Your task to perform on an android device: turn off translation in the chrome app Image 0: 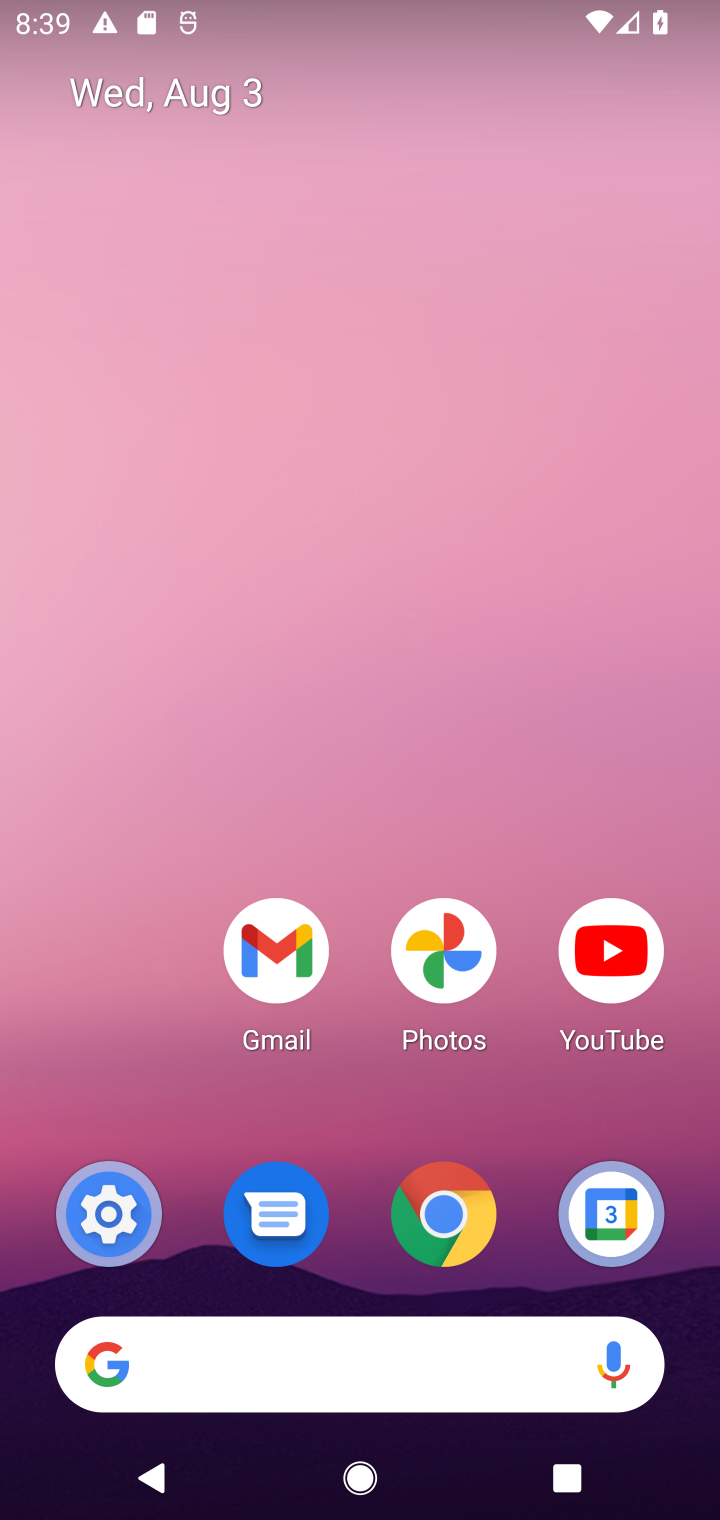
Step 0: click (450, 1200)
Your task to perform on an android device: turn off translation in the chrome app Image 1: 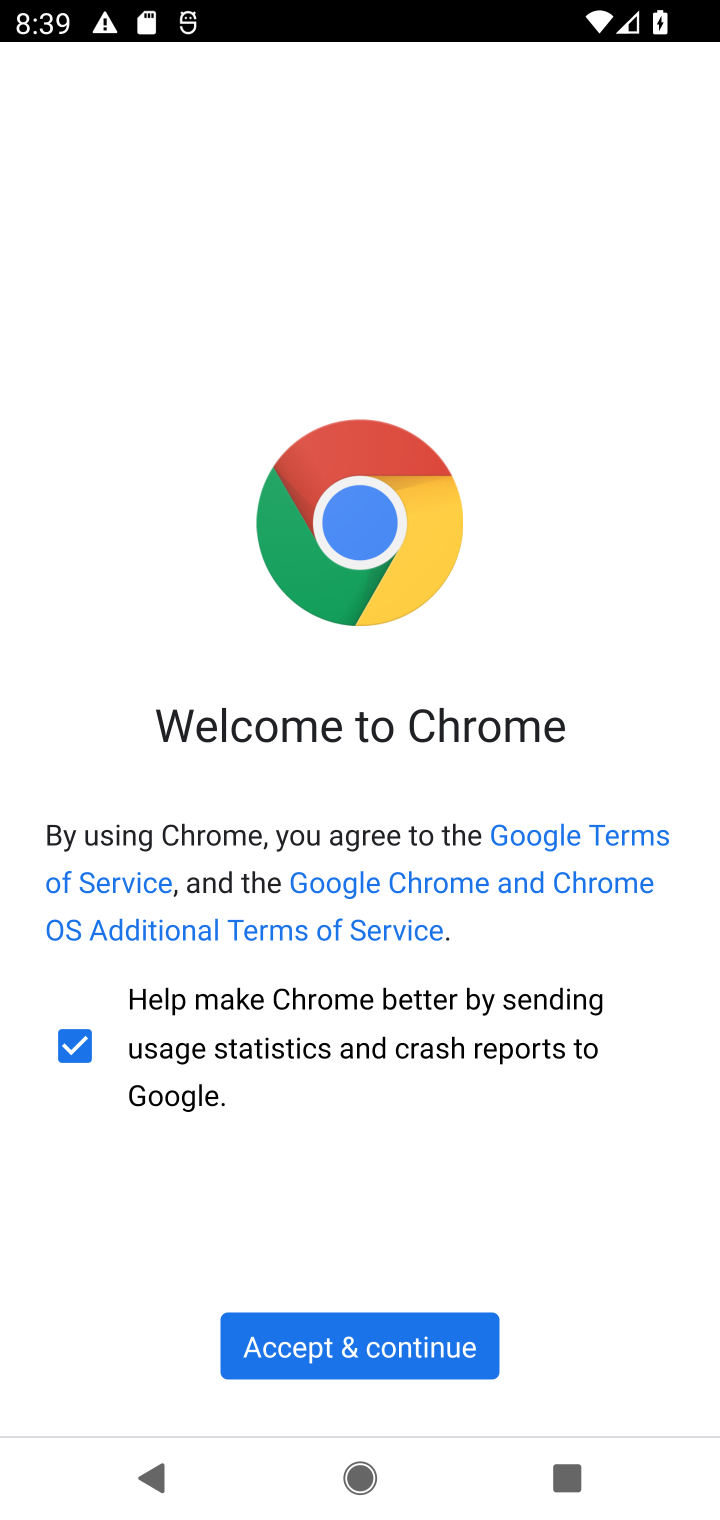
Step 1: click (318, 1353)
Your task to perform on an android device: turn off translation in the chrome app Image 2: 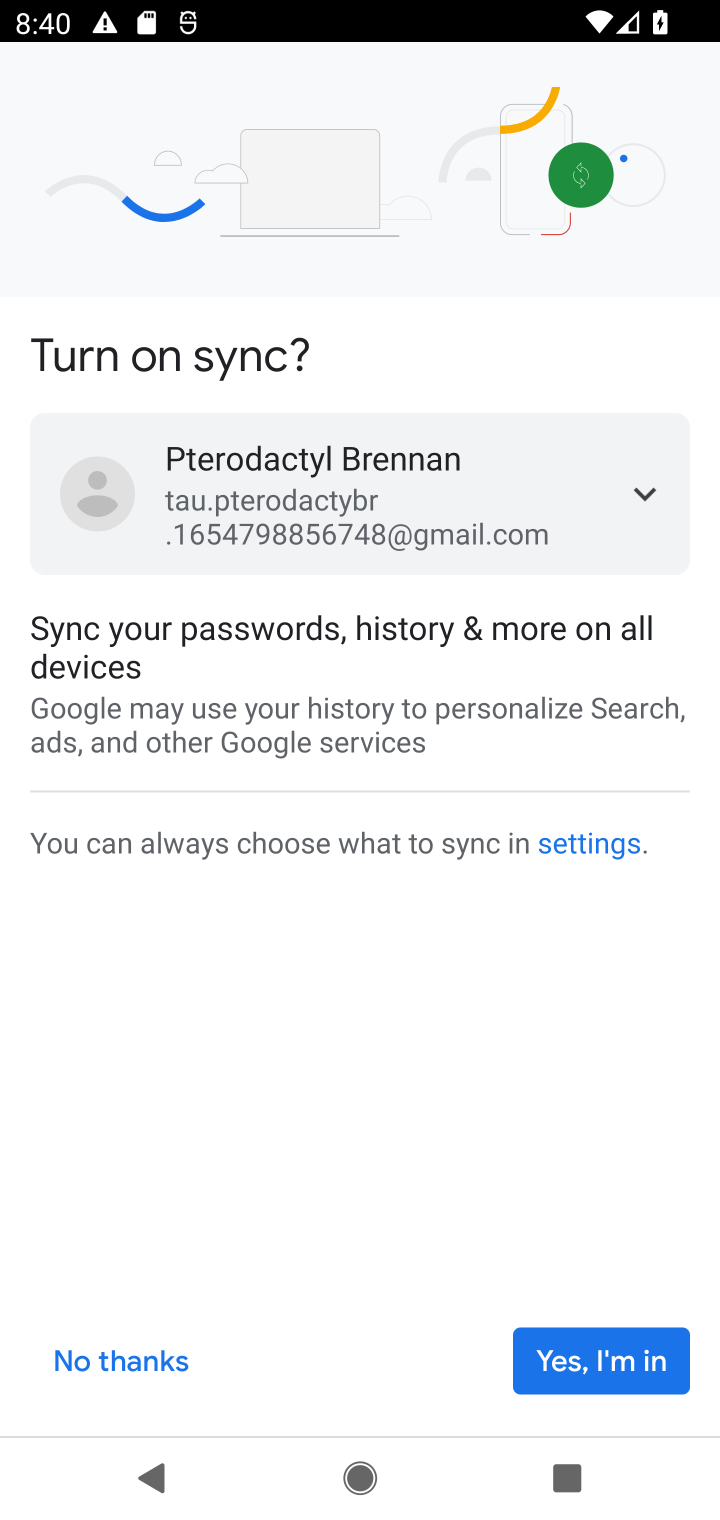
Step 2: click (570, 1370)
Your task to perform on an android device: turn off translation in the chrome app Image 3: 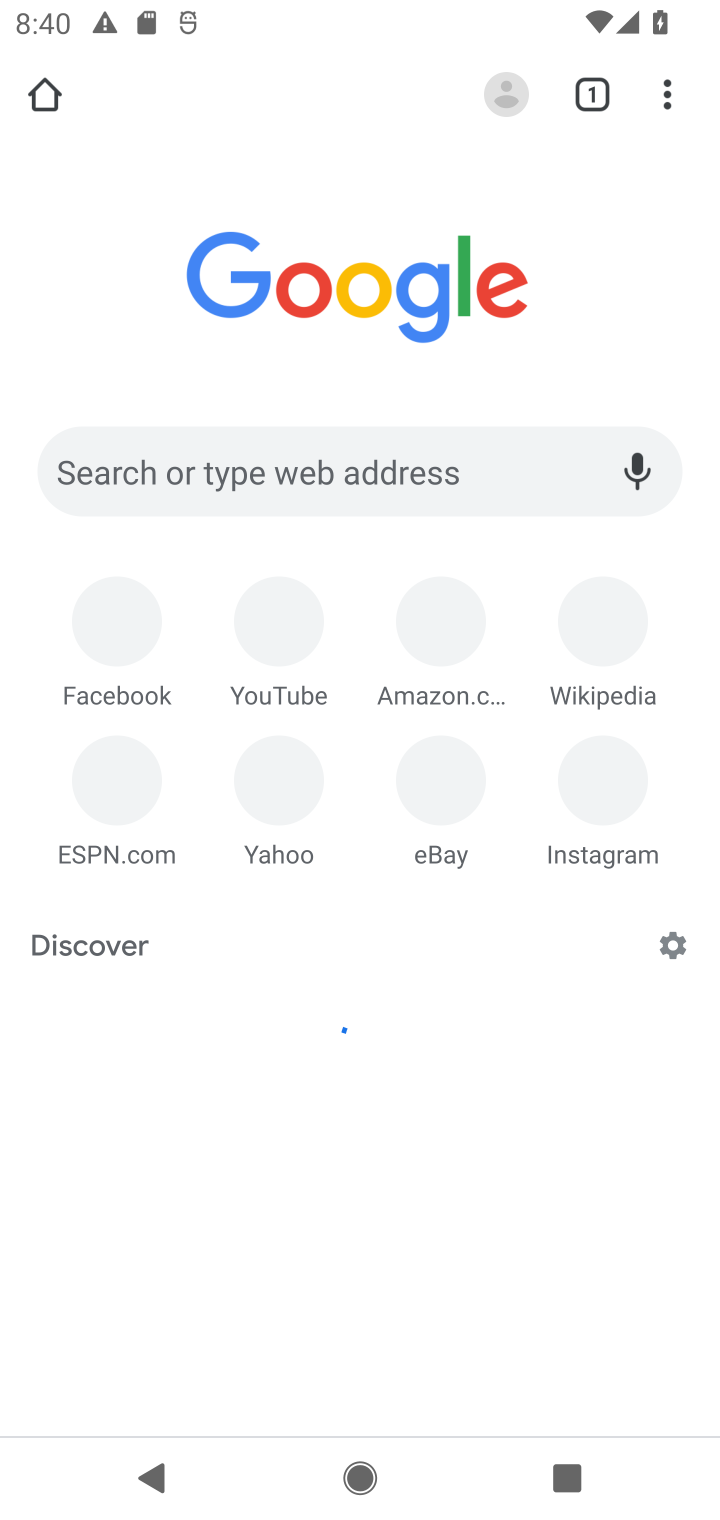
Step 3: click (656, 89)
Your task to perform on an android device: turn off translation in the chrome app Image 4: 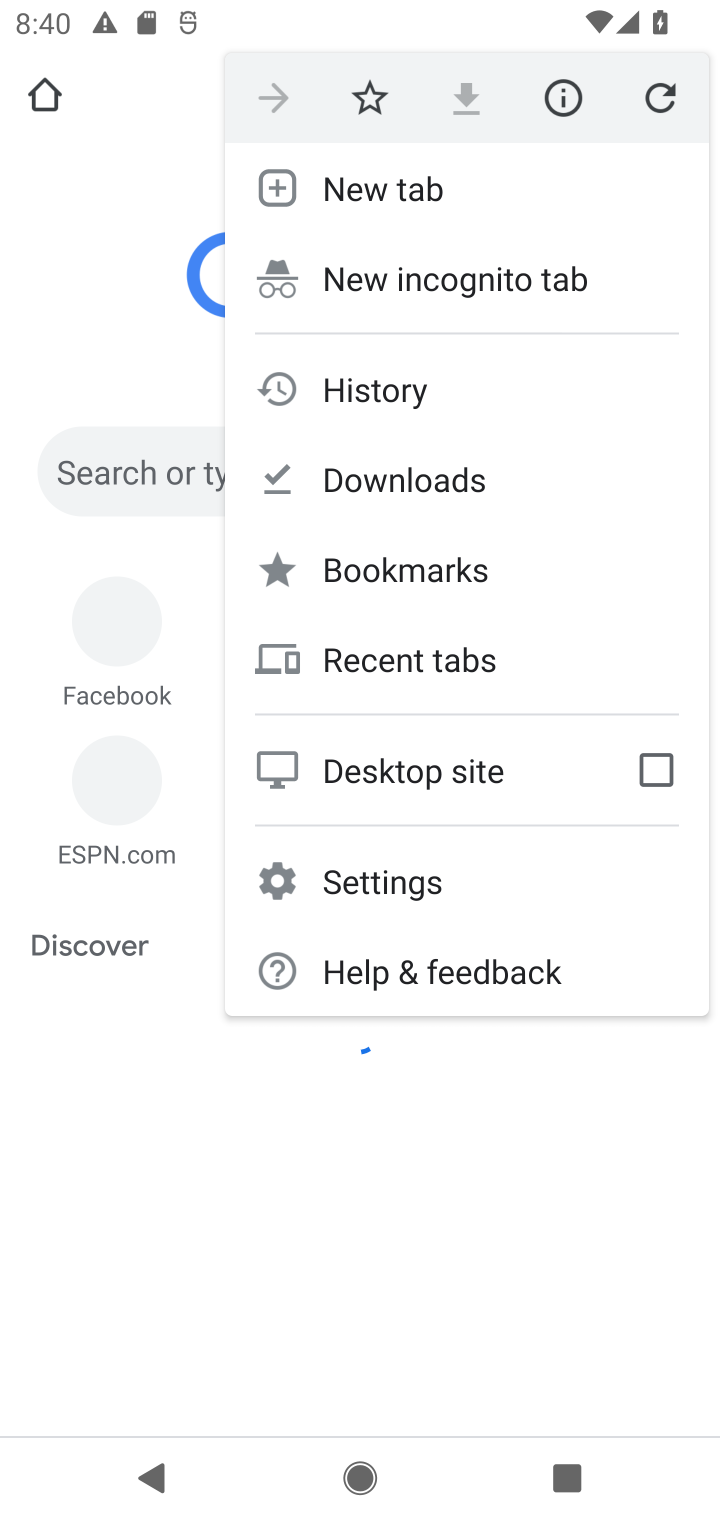
Step 4: click (410, 882)
Your task to perform on an android device: turn off translation in the chrome app Image 5: 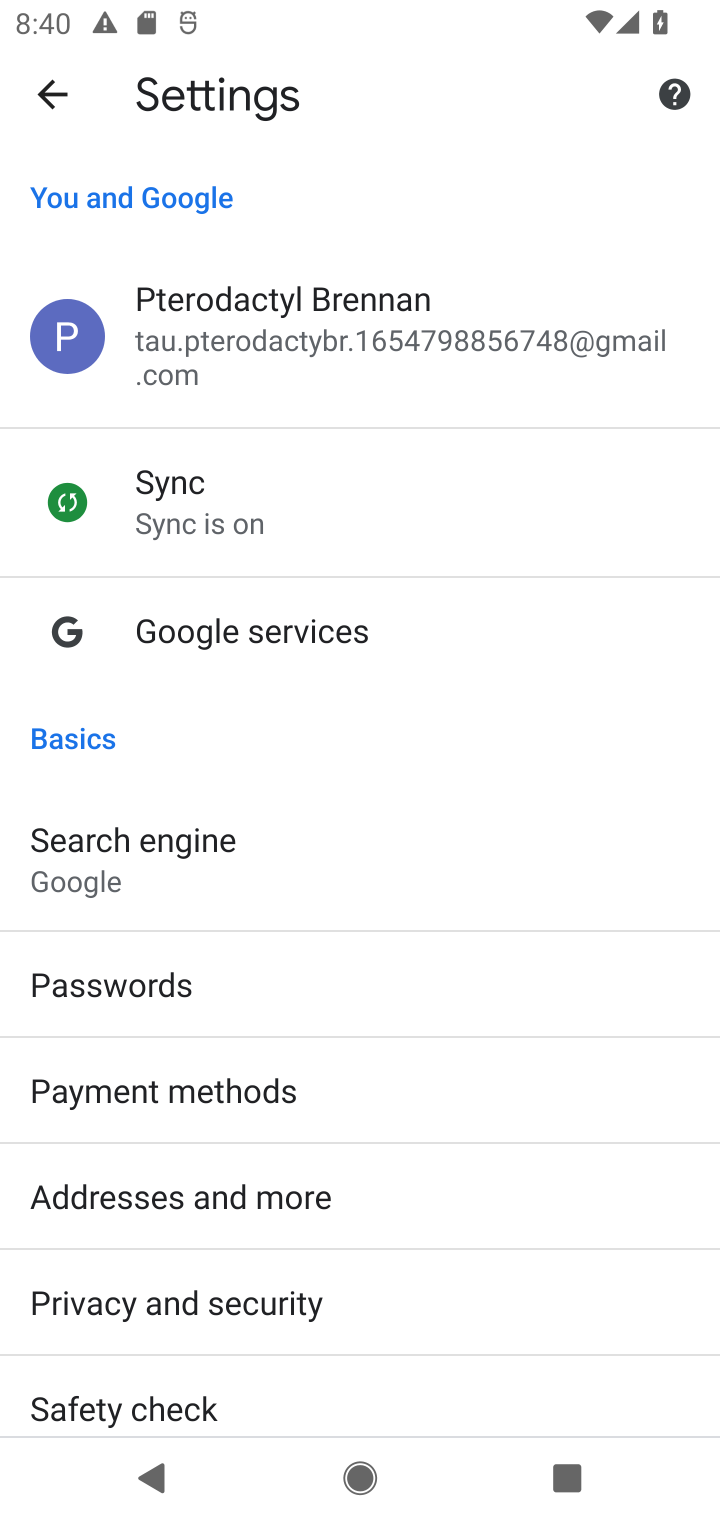
Step 5: drag from (245, 1369) to (316, 545)
Your task to perform on an android device: turn off translation in the chrome app Image 6: 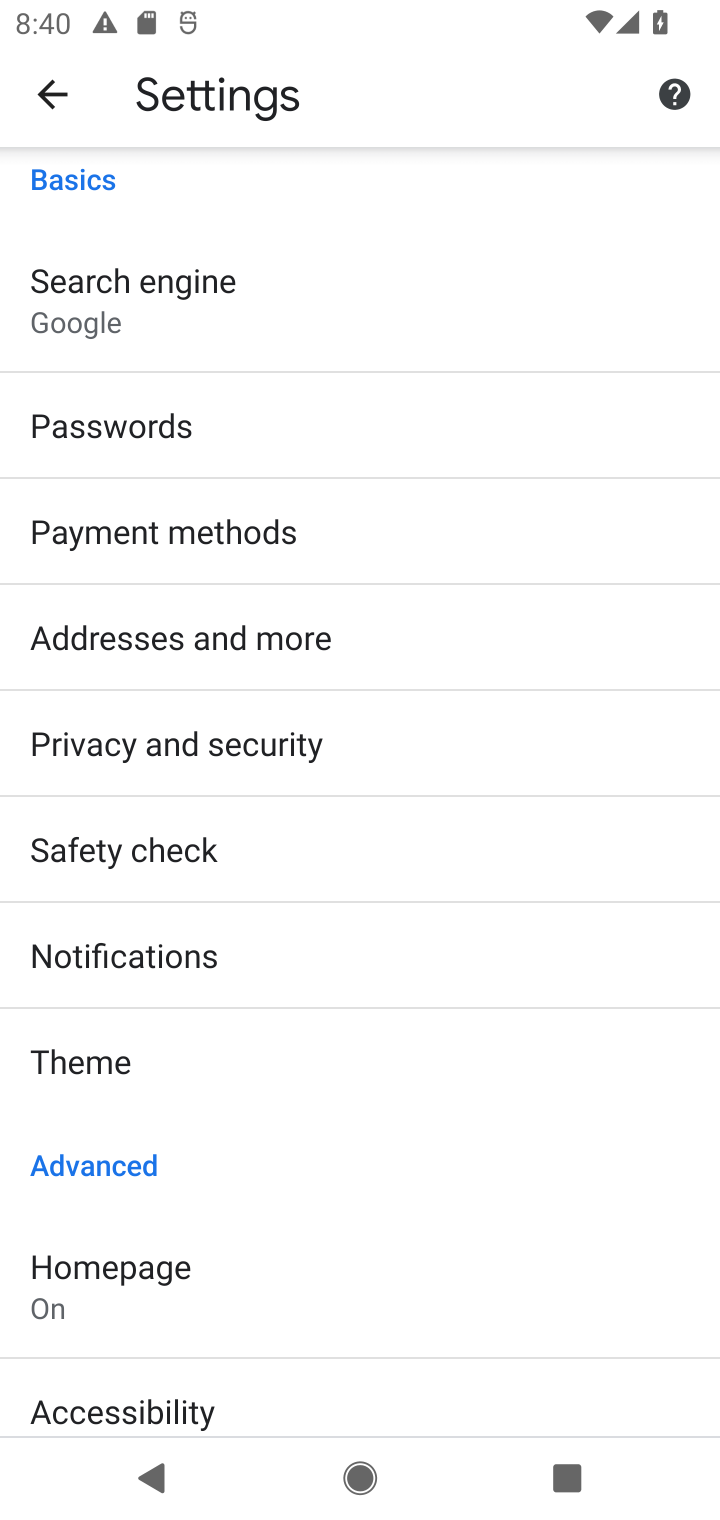
Step 6: drag from (246, 1211) to (246, 487)
Your task to perform on an android device: turn off translation in the chrome app Image 7: 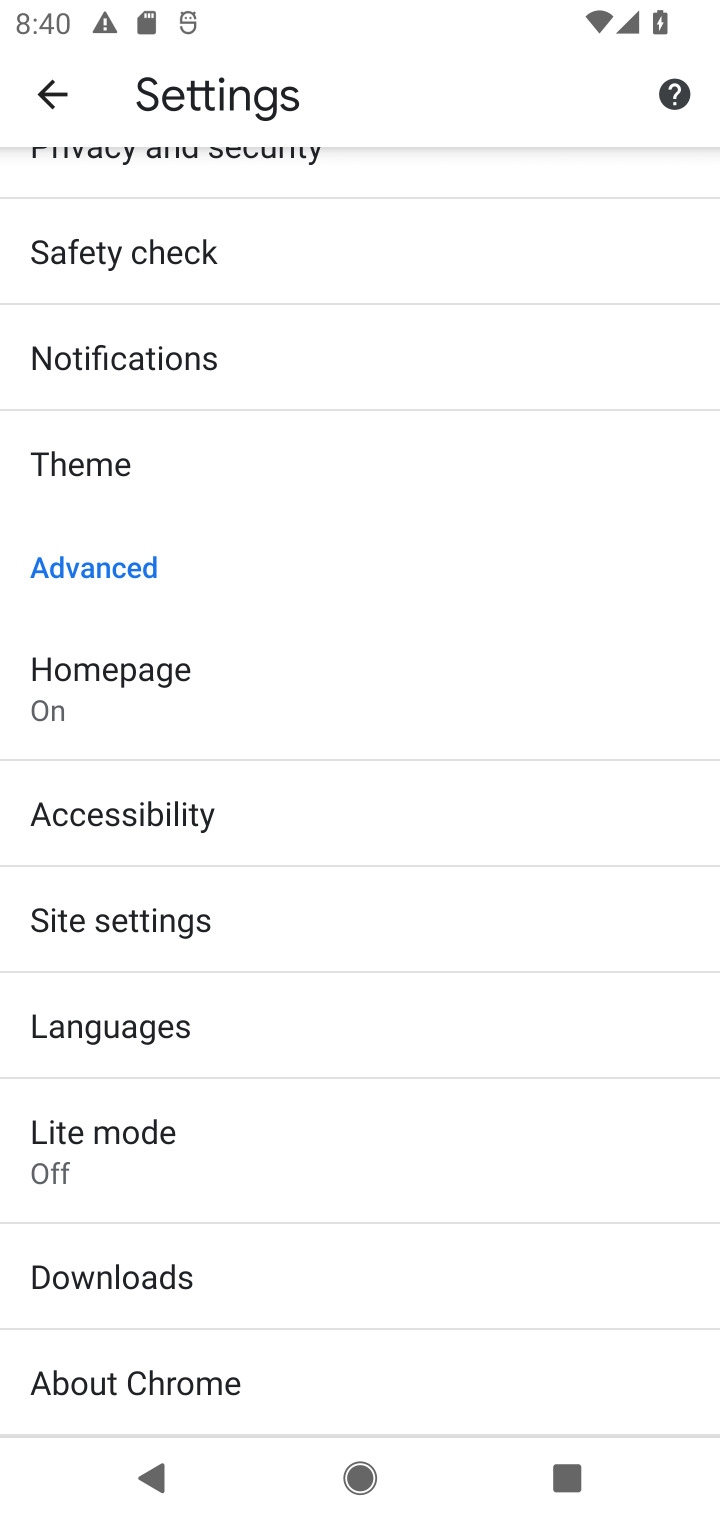
Step 7: click (208, 1042)
Your task to perform on an android device: turn off translation in the chrome app Image 8: 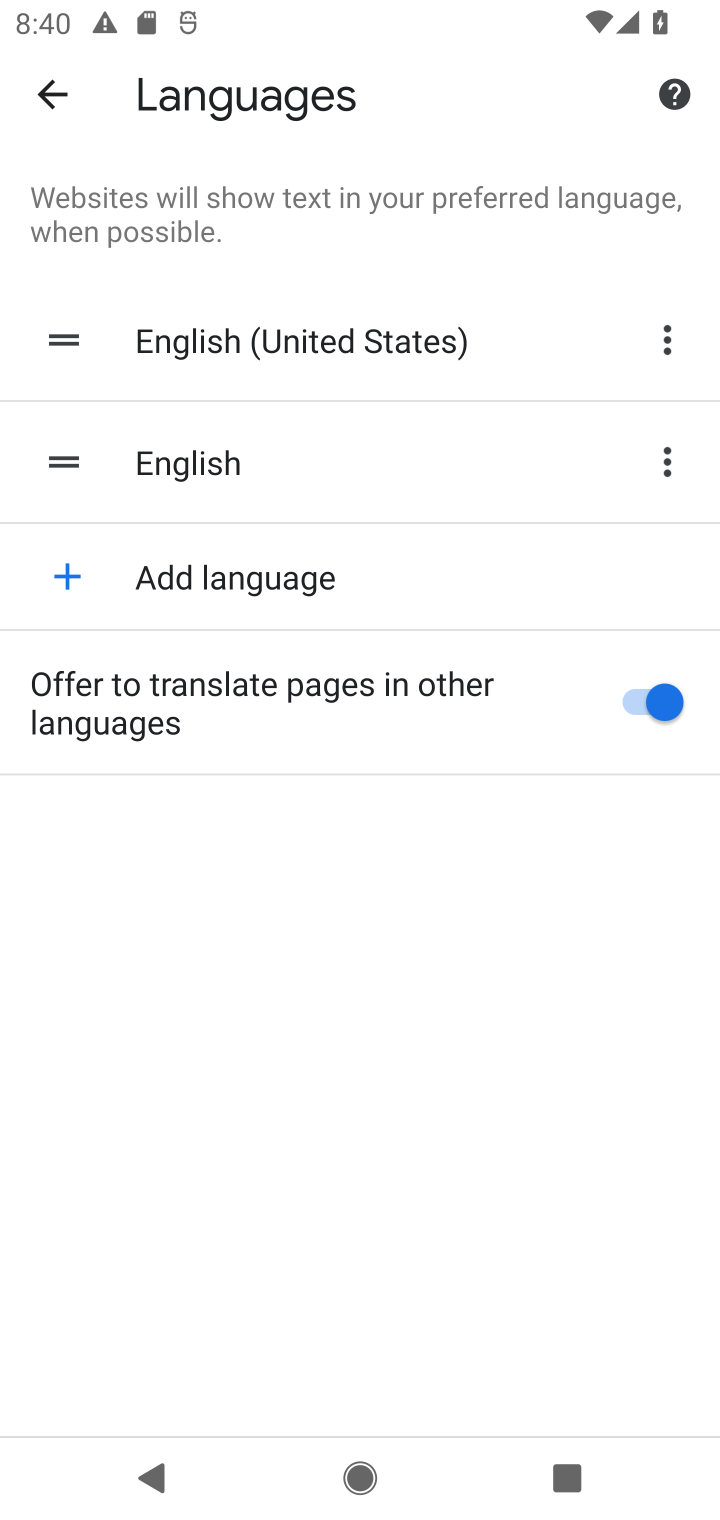
Step 8: click (654, 728)
Your task to perform on an android device: turn off translation in the chrome app Image 9: 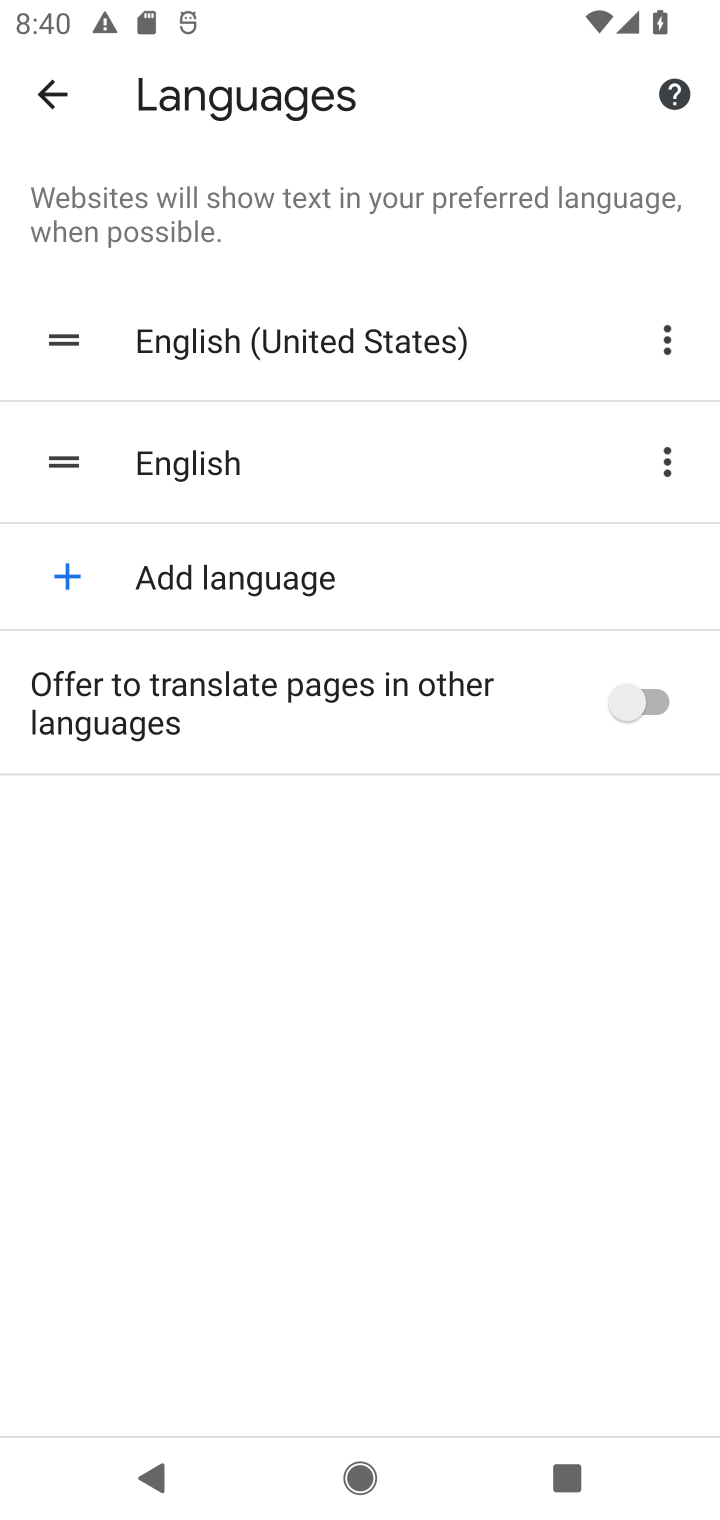
Step 9: task complete